Your task to perform on an android device: read, delete, or share a saved page in the chrome app Image 0: 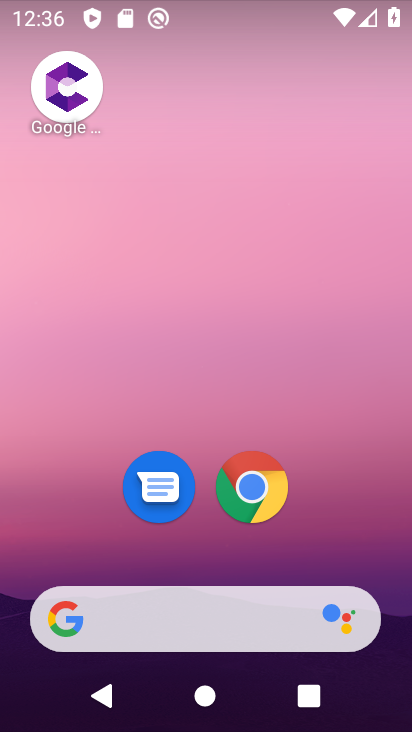
Step 0: click (266, 472)
Your task to perform on an android device: read, delete, or share a saved page in the chrome app Image 1: 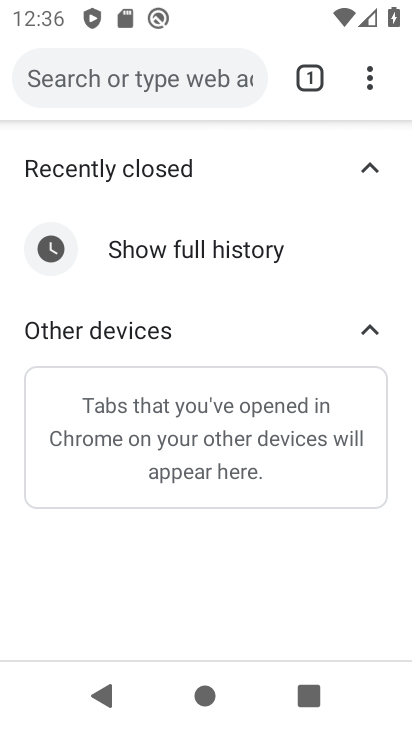
Step 1: click (369, 72)
Your task to perform on an android device: read, delete, or share a saved page in the chrome app Image 2: 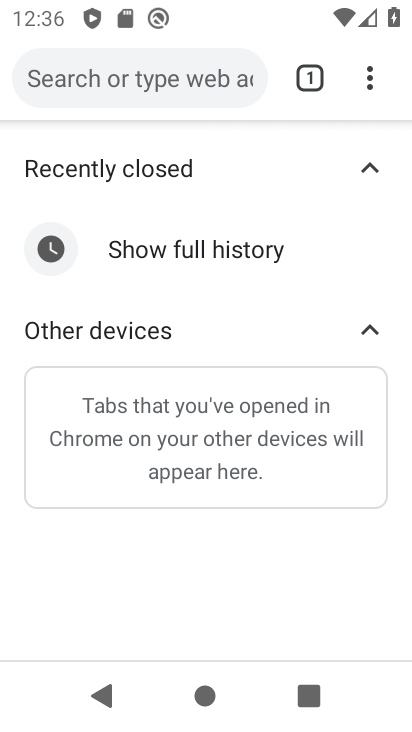
Step 2: drag from (369, 80) to (89, 498)
Your task to perform on an android device: read, delete, or share a saved page in the chrome app Image 3: 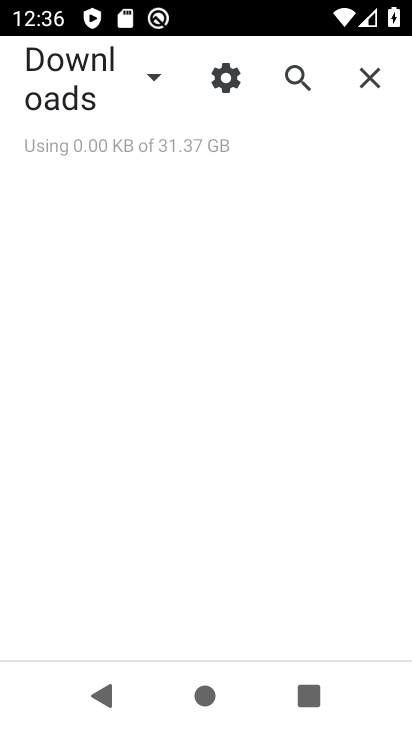
Step 3: click (112, 70)
Your task to perform on an android device: read, delete, or share a saved page in the chrome app Image 4: 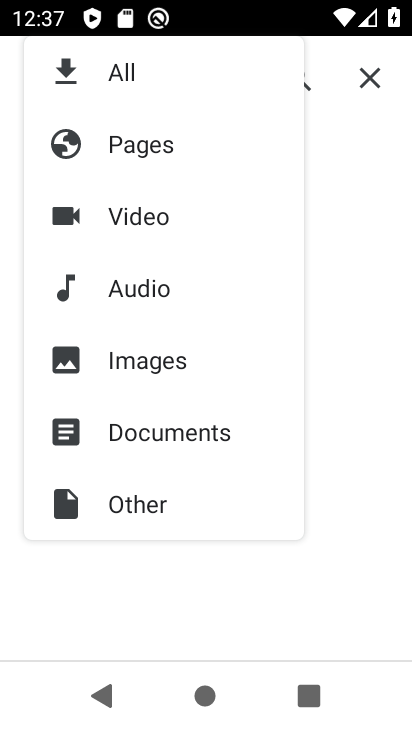
Step 4: click (101, 147)
Your task to perform on an android device: read, delete, or share a saved page in the chrome app Image 5: 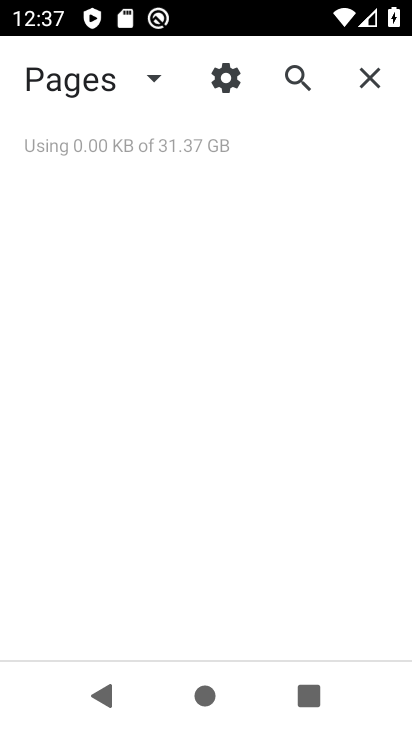
Step 5: task complete